Your task to perform on an android device: turn off airplane mode Image 0: 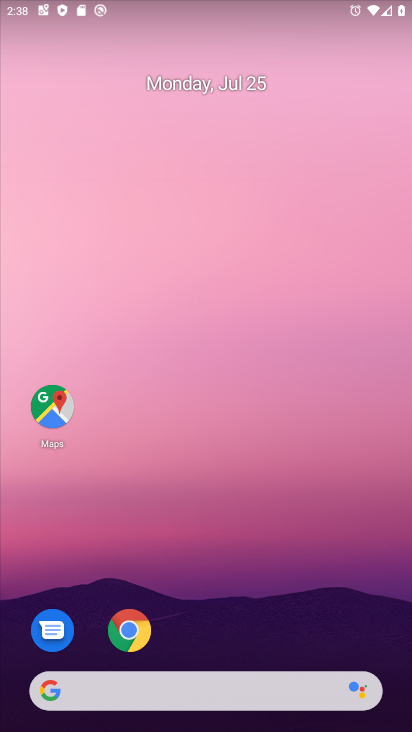
Step 0: drag from (341, 652) to (288, 47)
Your task to perform on an android device: turn off airplane mode Image 1: 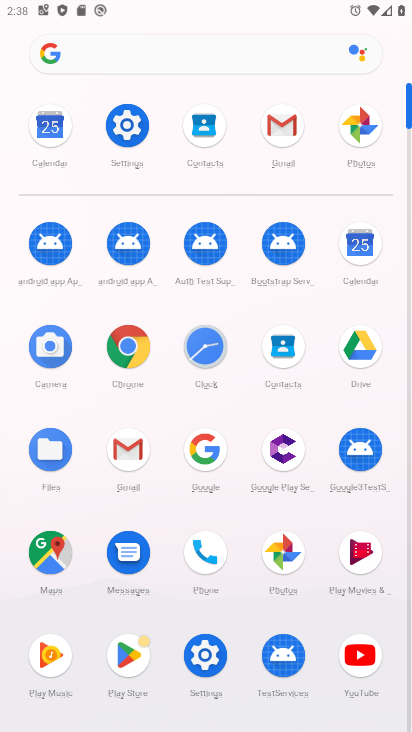
Step 1: click (208, 690)
Your task to perform on an android device: turn off airplane mode Image 2: 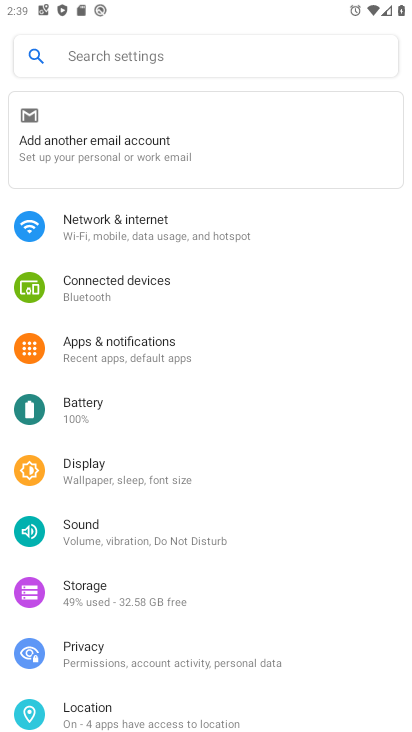
Step 2: click (124, 245)
Your task to perform on an android device: turn off airplane mode Image 3: 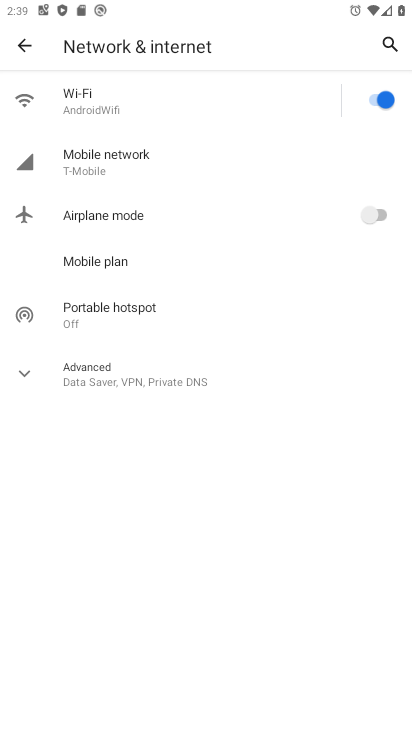
Step 3: click (362, 207)
Your task to perform on an android device: turn off airplane mode Image 4: 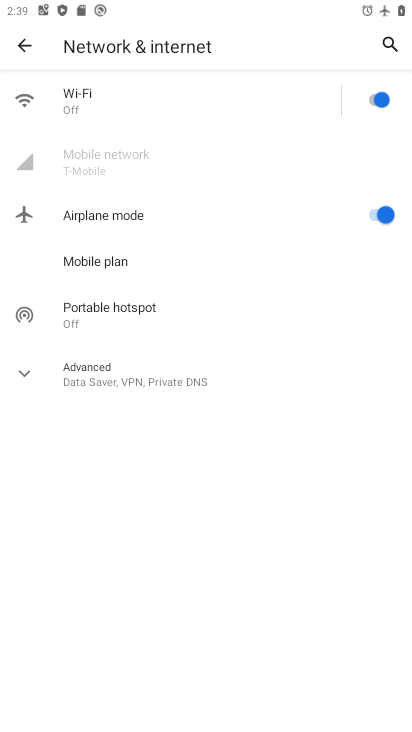
Step 4: task complete